Your task to perform on an android device: What is the news today? Image 0: 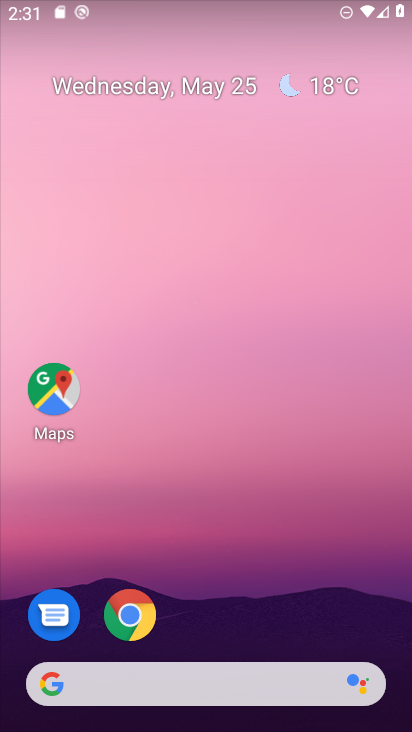
Step 0: click (222, 690)
Your task to perform on an android device: What is the news today? Image 1: 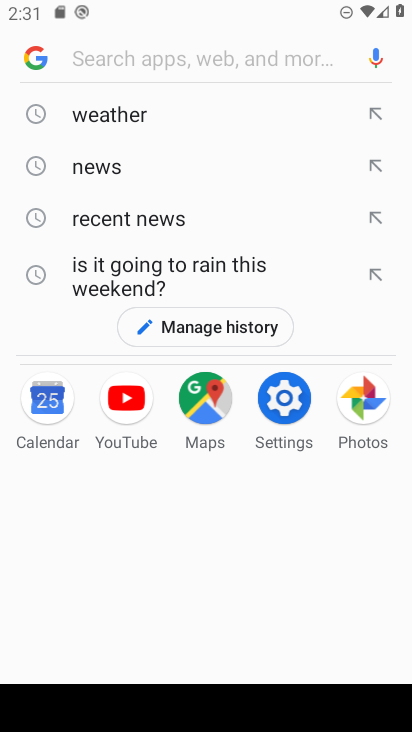
Step 1: click (100, 165)
Your task to perform on an android device: What is the news today? Image 2: 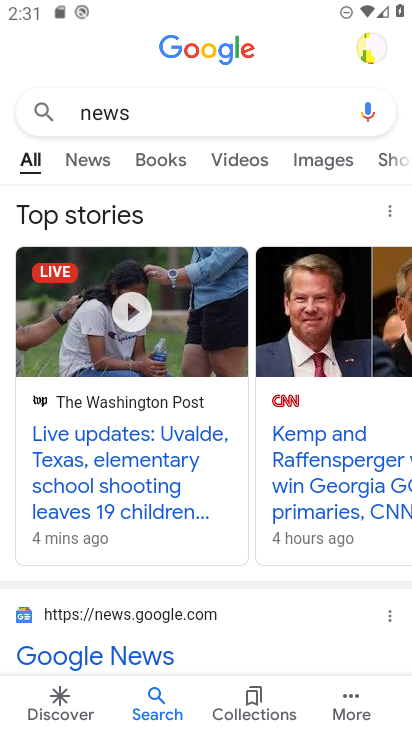
Step 2: click (100, 162)
Your task to perform on an android device: What is the news today? Image 3: 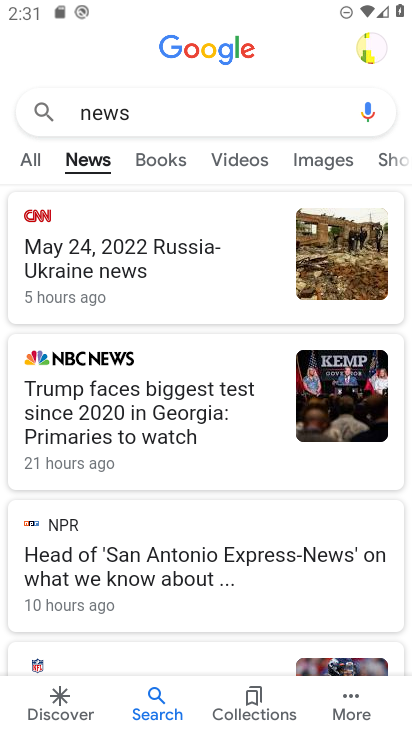
Step 3: task complete